Your task to perform on an android device: Go to notification settings Image 0: 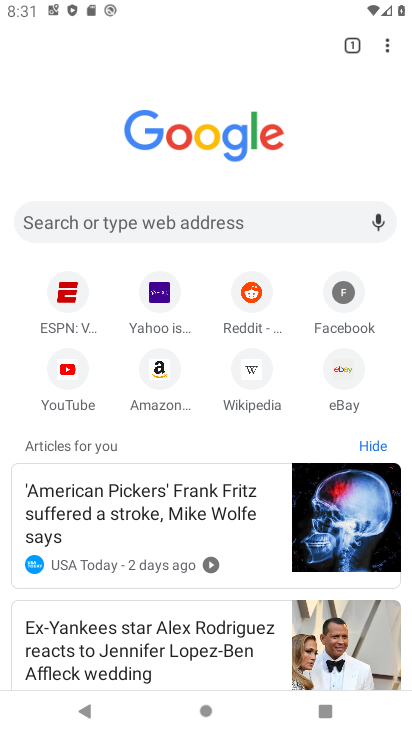
Step 0: click (387, 48)
Your task to perform on an android device: Go to notification settings Image 1: 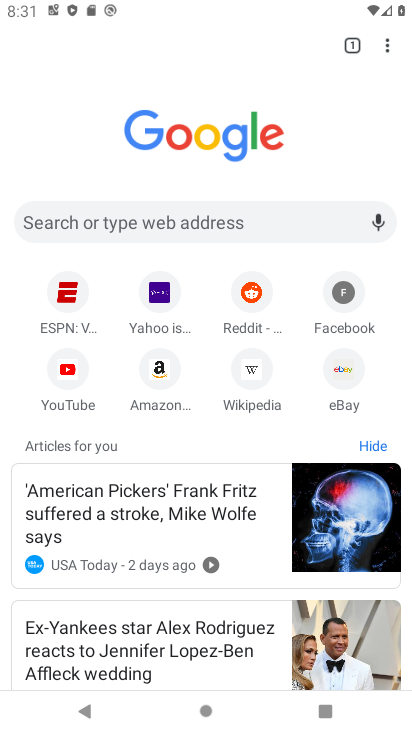
Step 1: click (387, 48)
Your task to perform on an android device: Go to notification settings Image 2: 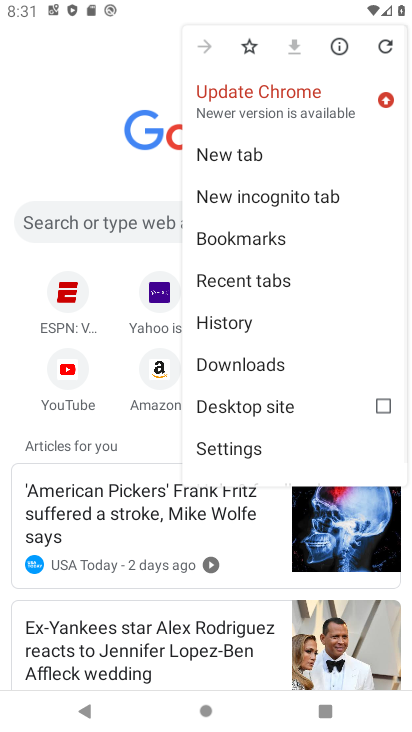
Step 2: press home button
Your task to perform on an android device: Go to notification settings Image 3: 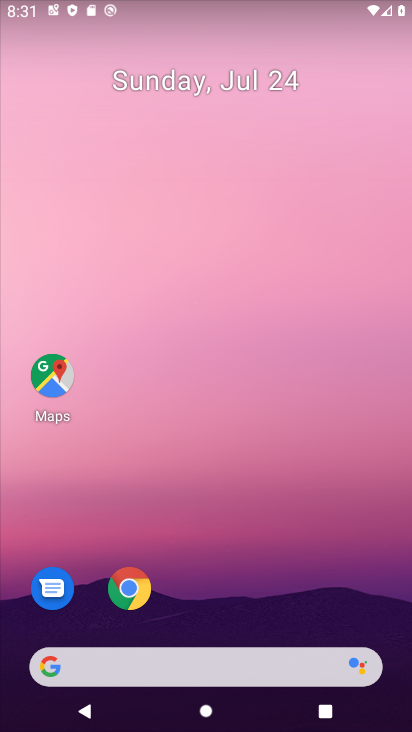
Step 3: drag from (163, 582) to (256, 11)
Your task to perform on an android device: Go to notification settings Image 4: 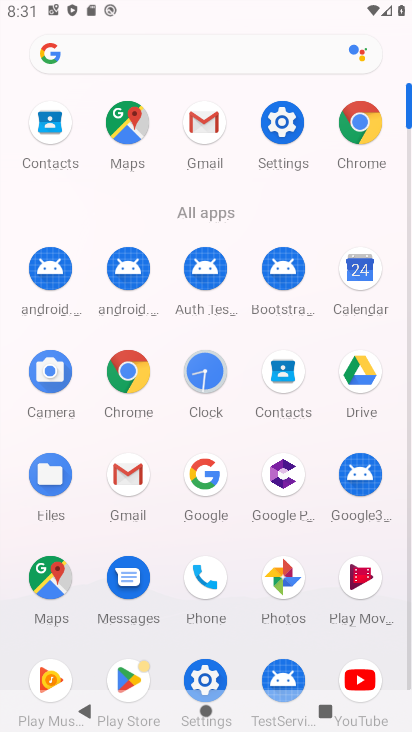
Step 4: click (284, 128)
Your task to perform on an android device: Go to notification settings Image 5: 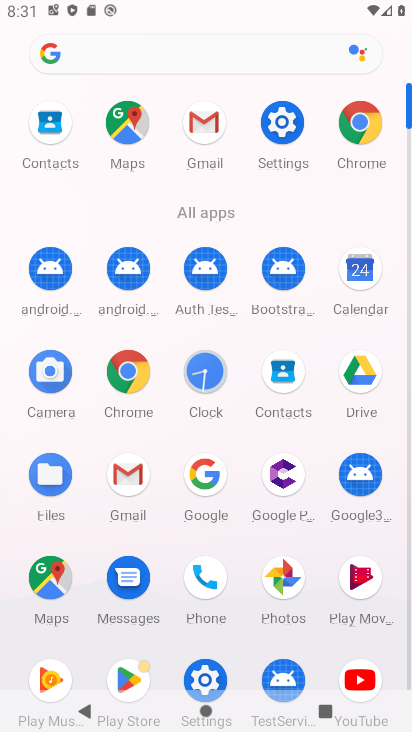
Step 5: click (284, 128)
Your task to perform on an android device: Go to notification settings Image 6: 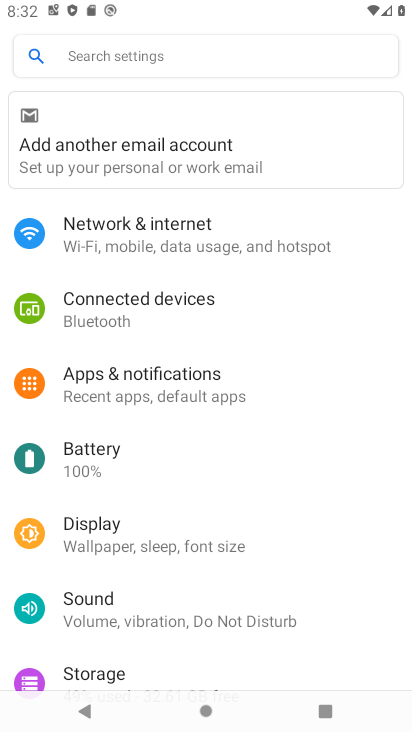
Step 6: click (231, 394)
Your task to perform on an android device: Go to notification settings Image 7: 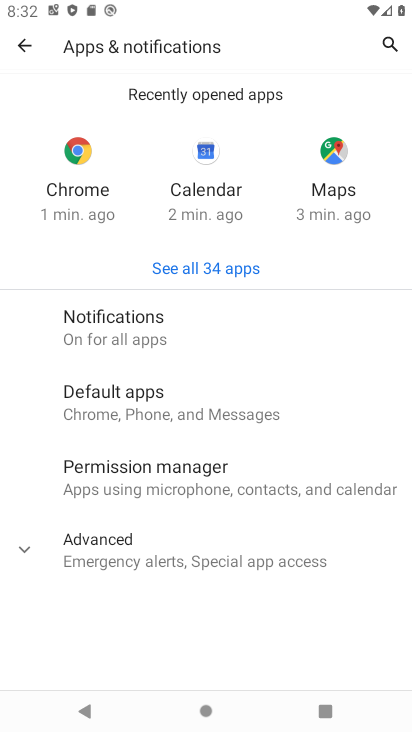
Step 7: task complete